Your task to perform on an android device: Open the map Image 0: 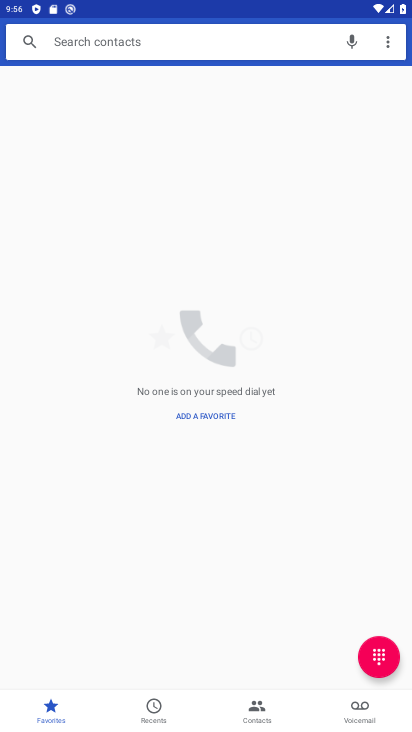
Step 0: press home button
Your task to perform on an android device: Open the map Image 1: 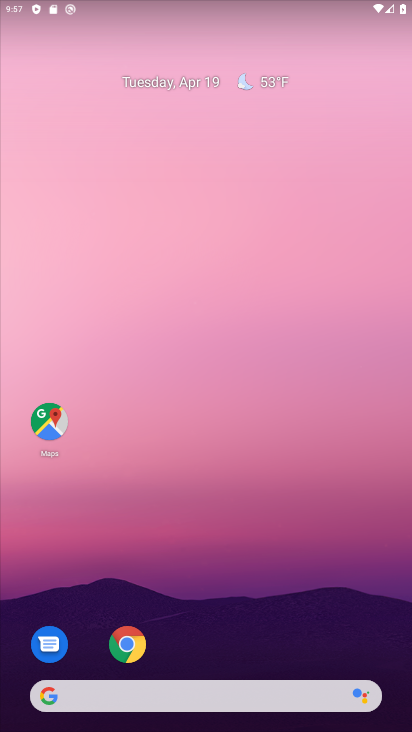
Step 1: click (38, 421)
Your task to perform on an android device: Open the map Image 2: 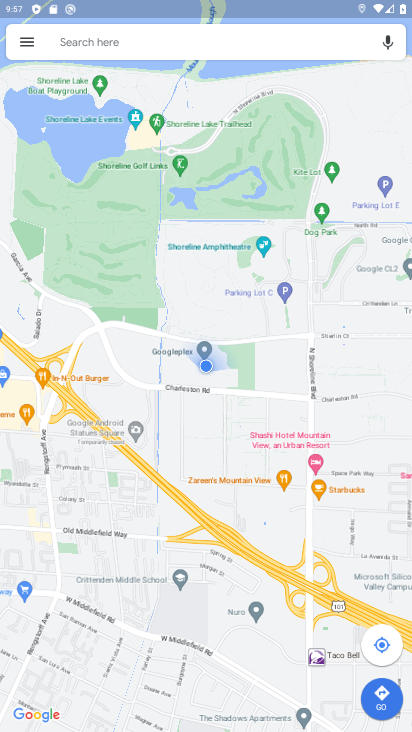
Step 2: task complete